Your task to perform on an android device: Go to eBay Image 0: 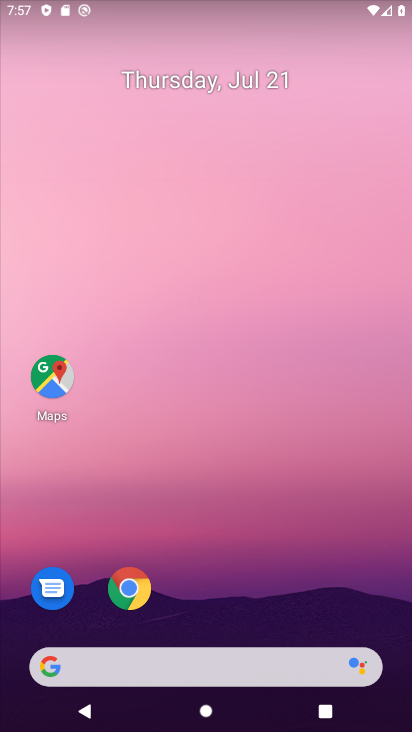
Step 0: drag from (282, 712) to (214, 128)
Your task to perform on an android device: Go to eBay Image 1: 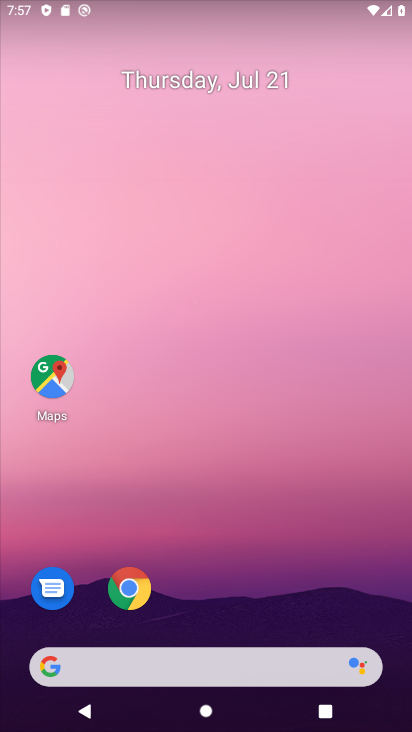
Step 1: drag from (237, 580) to (181, 127)
Your task to perform on an android device: Go to eBay Image 2: 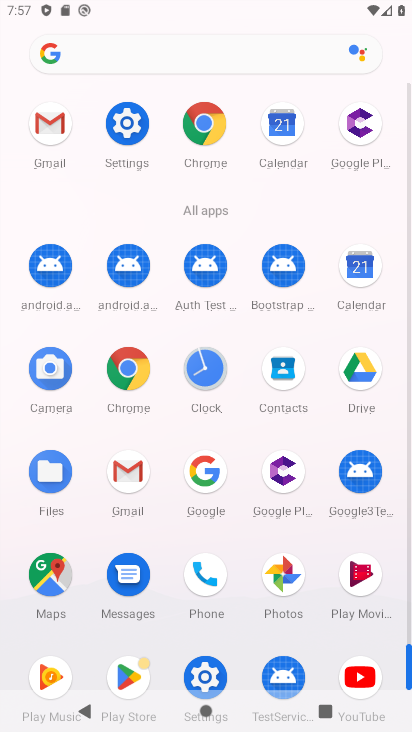
Step 2: click (201, 143)
Your task to perform on an android device: Go to eBay Image 3: 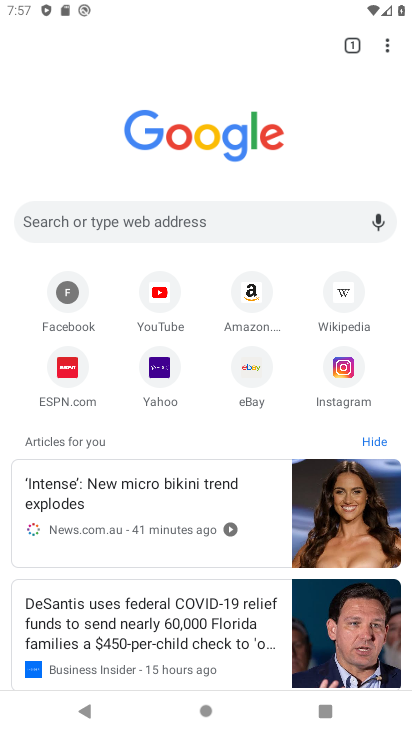
Step 3: click (247, 365)
Your task to perform on an android device: Go to eBay Image 4: 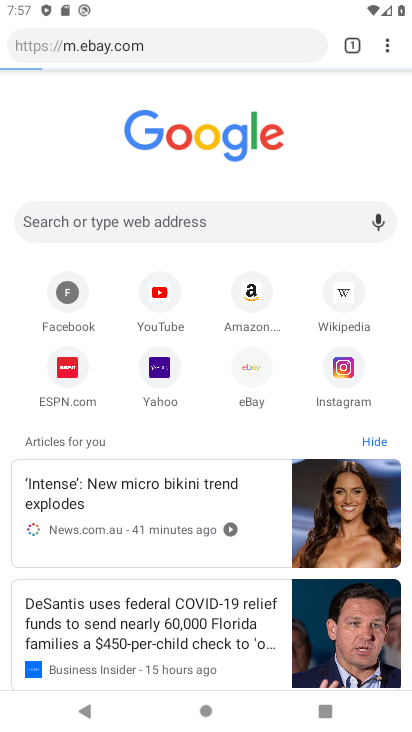
Step 4: click (249, 364)
Your task to perform on an android device: Go to eBay Image 5: 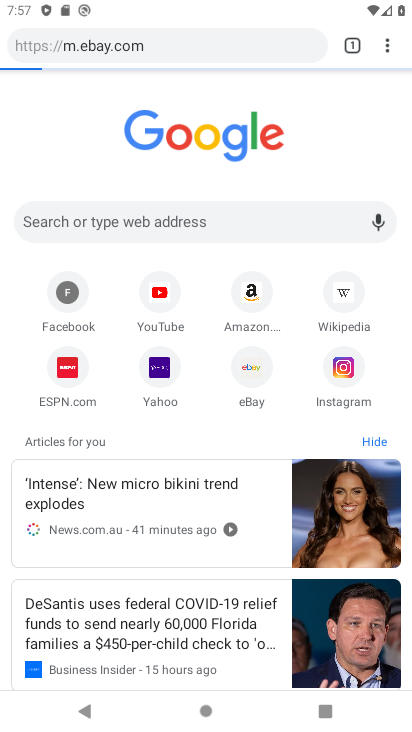
Step 5: click (249, 364)
Your task to perform on an android device: Go to eBay Image 6: 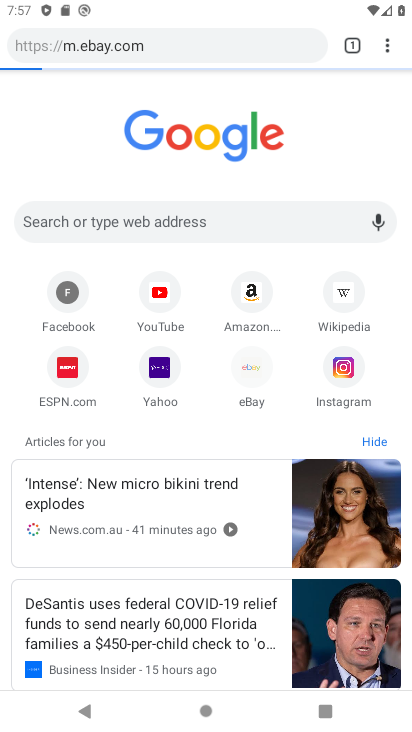
Step 6: click (249, 364)
Your task to perform on an android device: Go to eBay Image 7: 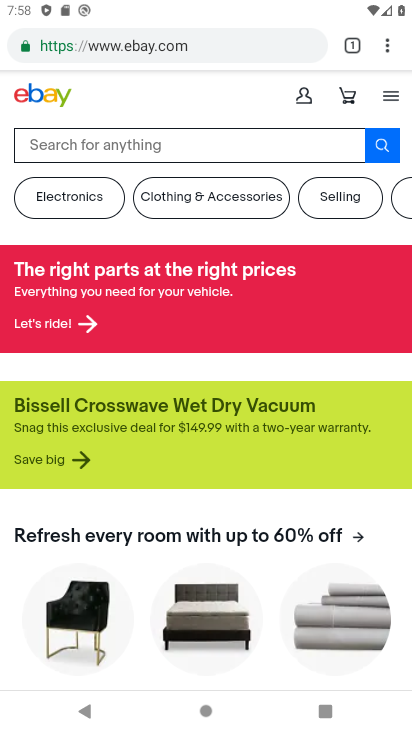
Step 7: task complete